Your task to perform on an android device: Turn off the flashlight Image 0: 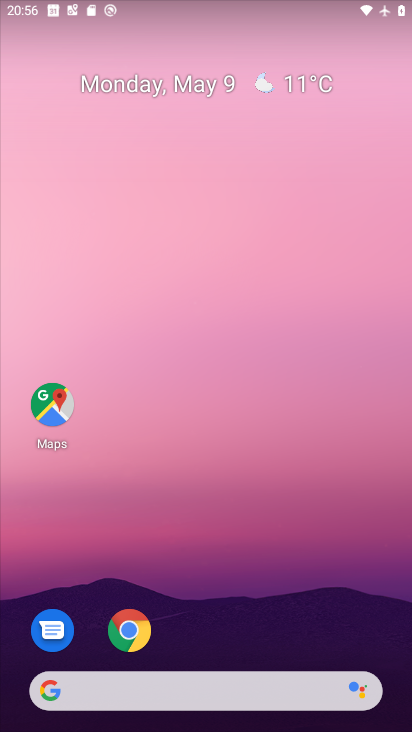
Step 0: drag from (253, 597) to (246, 137)
Your task to perform on an android device: Turn off the flashlight Image 1: 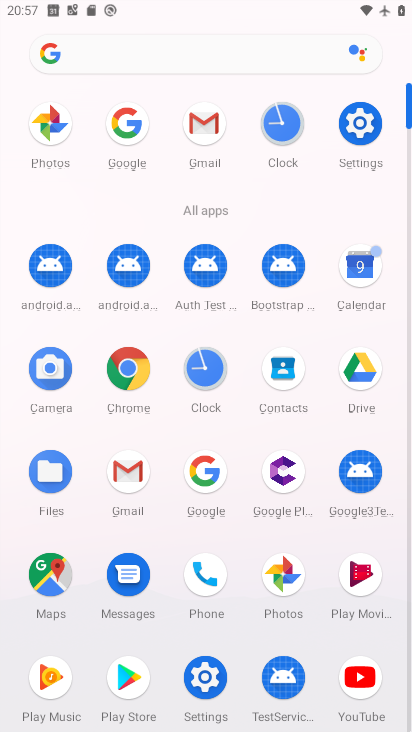
Step 1: click (358, 125)
Your task to perform on an android device: Turn off the flashlight Image 2: 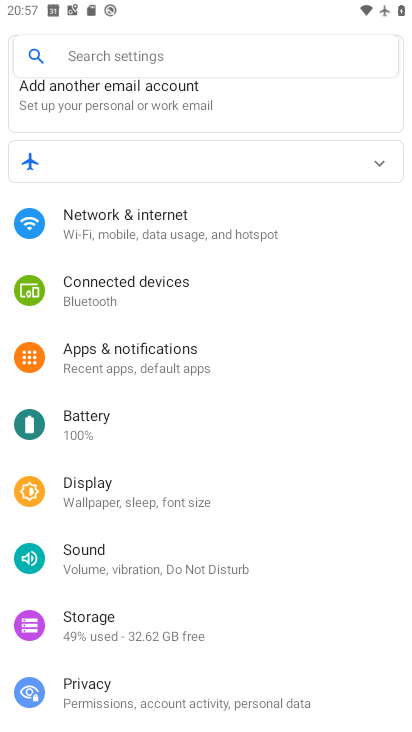
Step 2: click (116, 52)
Your task to perform on an android device: Turn off the flashlight Image 3: 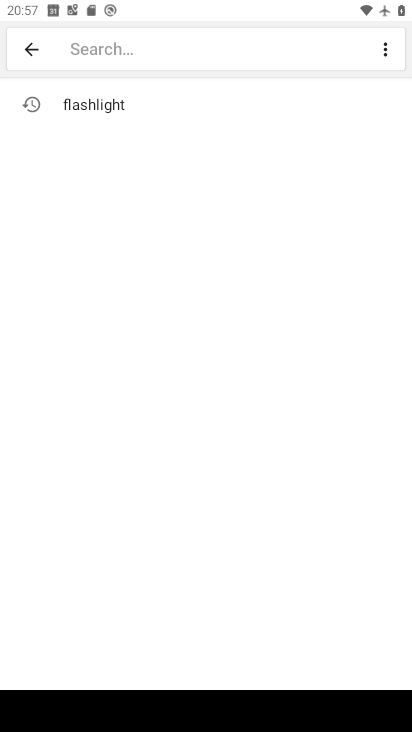
Step 3: type "flashlight"
Your task to perform on an android device: Turn off the flashlight Image 4: 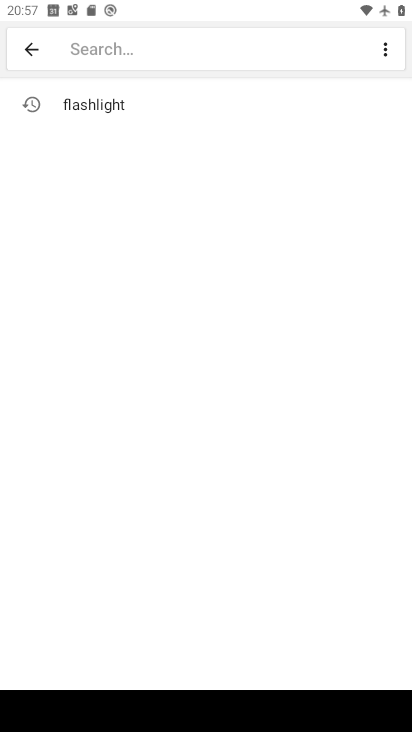
Step 4: click (100, 96)
Your task to perform on an android device: Turn off the flashlight Image 5: 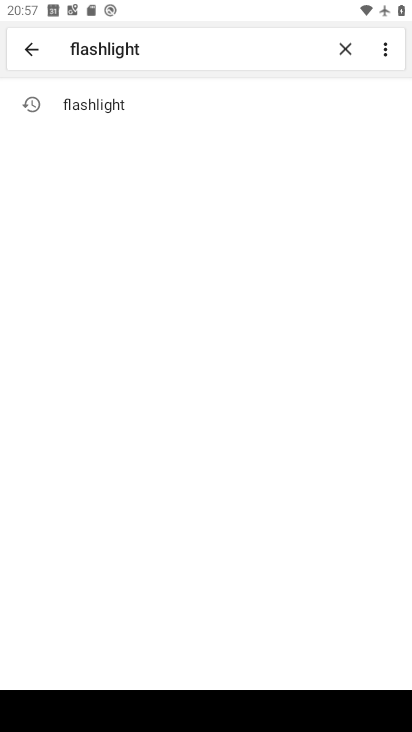
Step 5: click (72, 102)
Your task to perform on an android device: Turn off the flashlight Image 6: 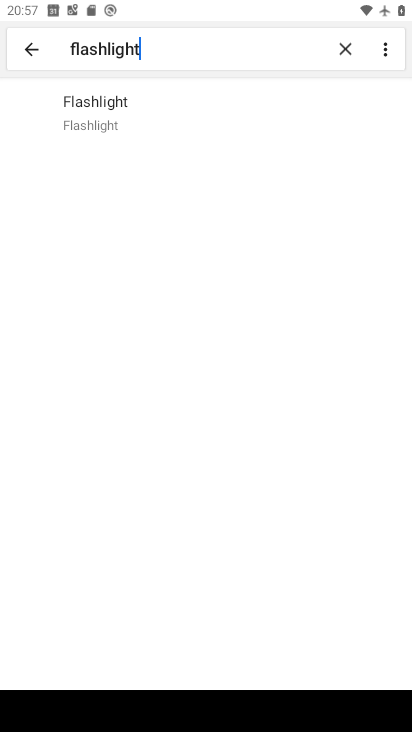
Step 6: task complete